Your task to perform on an android device: What's on my calendar today? Image 0: 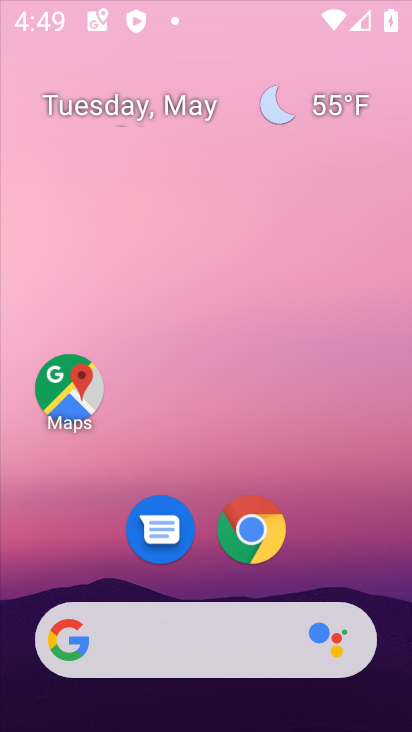
Step 0: drag from (289, 701) to (192, 4)
Your task to perform on an android device: What's on my calendar today? Image 1: 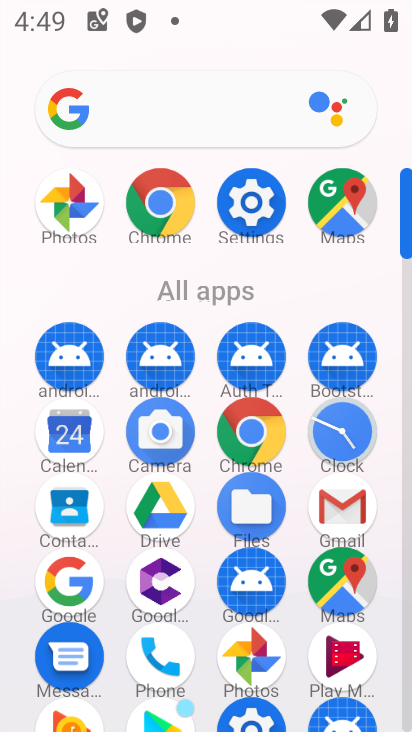
Step 1: click (47, 438)
Your task to perform on an android device: What's on my calendar today? Image 2: 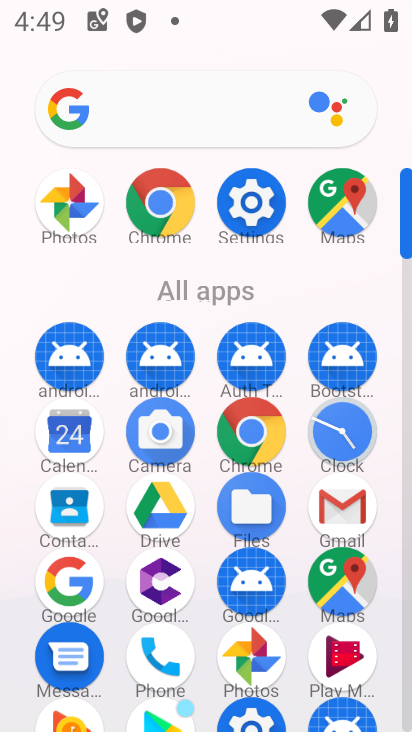
Step 2: click (52, 434)
Your task to perform on an android device: What's on my calendar today? Image 3: 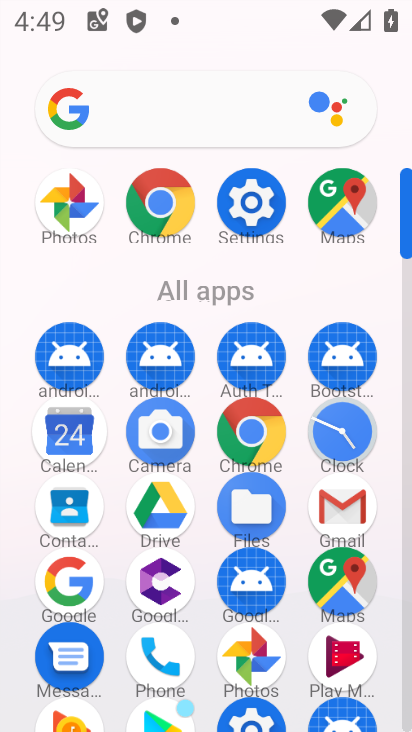
Step 3: click (56, 430)
Your task to perform on an android device: What's on my calendar today? Image 4: 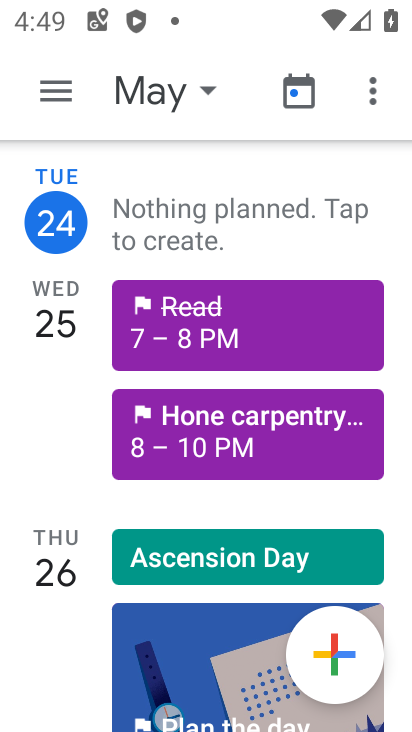
Step 4: click (142, 228)
Your task to perform on an android device: What's on my calendar today? Image 5: 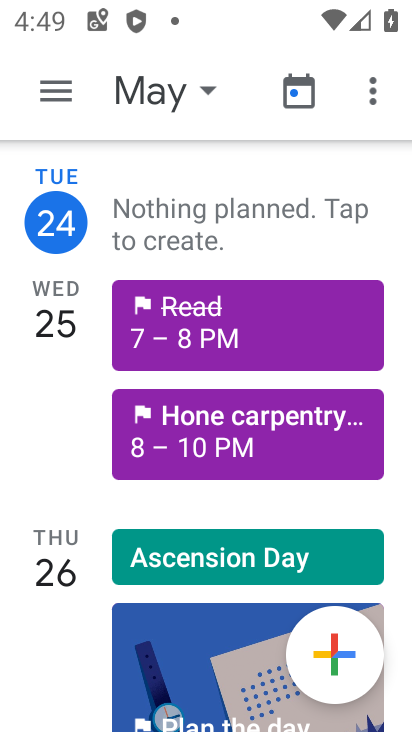
Step 5: click (145, 225)
Your task to perform on an android device: What's on my calendar today? Image 6: 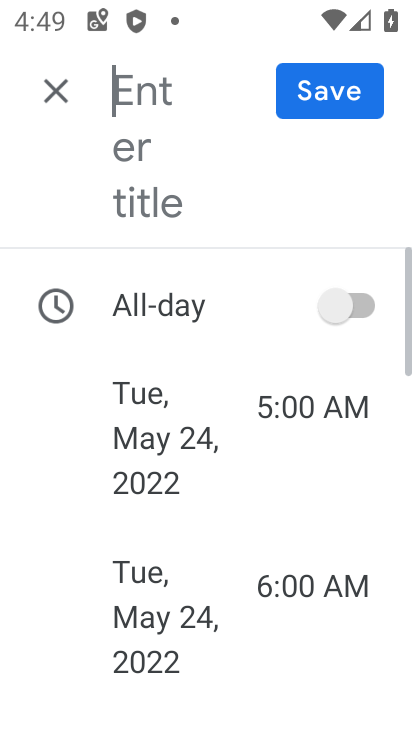
Step 6: task complete